Your task to perform on an android device: toggle sleep mode Image 0: 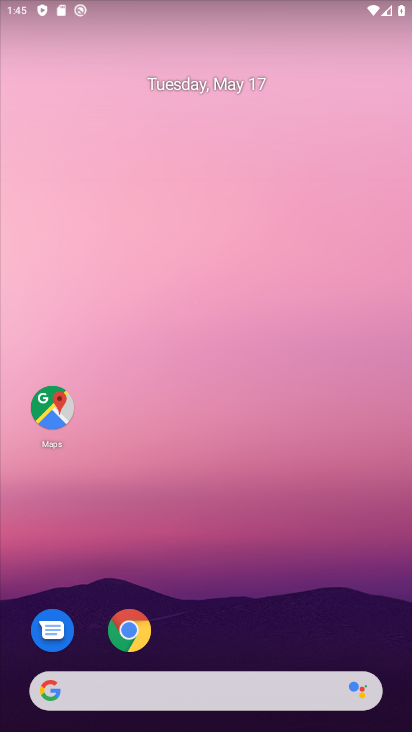
Step 0: drag from (246, 620) to (224, 224)
Your task to perform on an android device: toggle sleep mode Image 1: 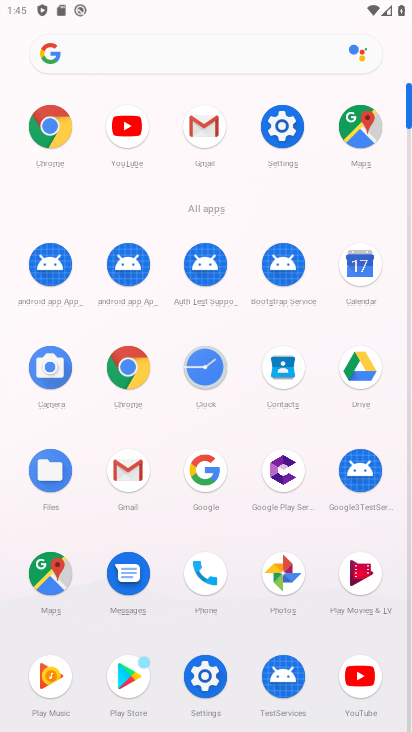
Step 1: click (274, 136)
Your task to perform on an android device: toggle sleep mode Image 2: 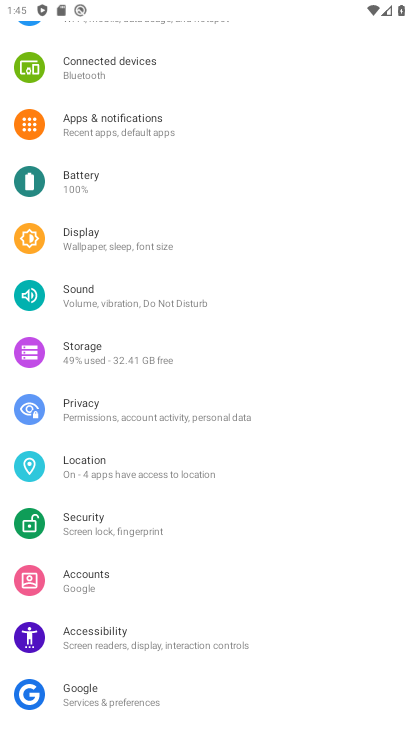
Step 2: drag from (240, 141) to (246, 493)
Your task to perform on an android device: toggle sleep mode Image 3: 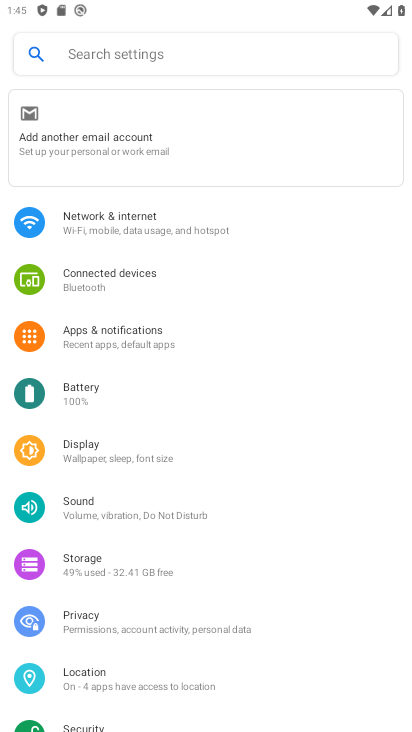
Step 3: click (193, 66)
Your task to perform on an android device: toggle sleep mode Image 4: 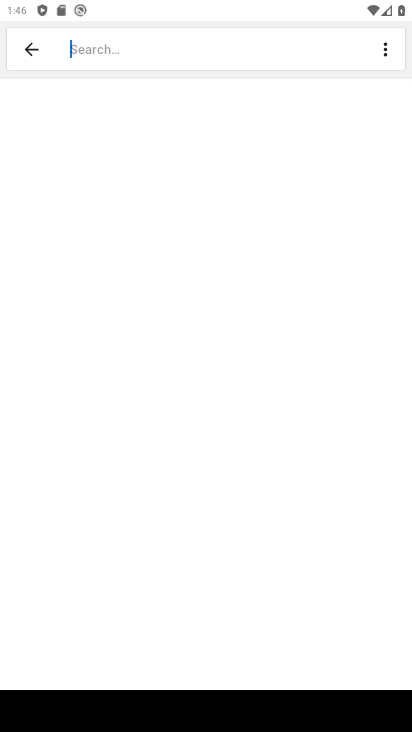
Step 4: type "sleep mode"
Your task to perform on an android device: toggle sleep mode Image 5: 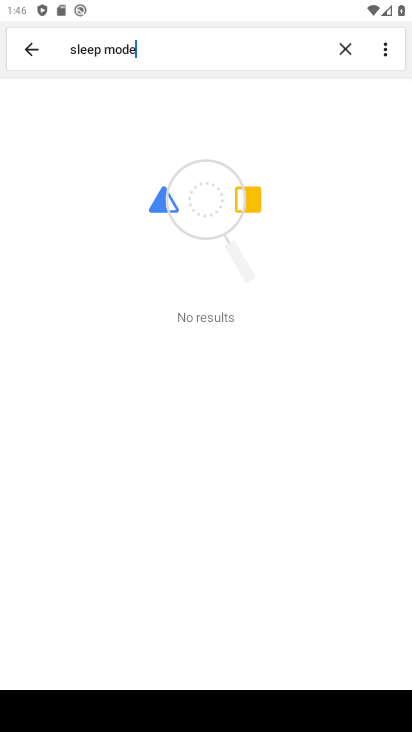
Step 5: task complete